Your task to perform on an android device: toggle location history Image 0: 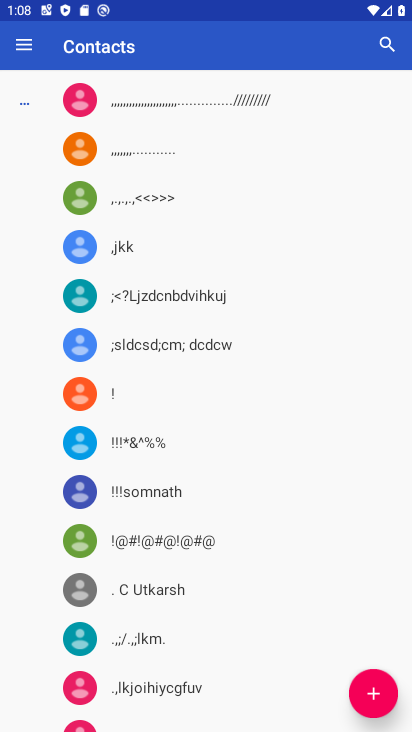
Step 0: press home button
Your task to perform on an android device: toggle location history Image 1: 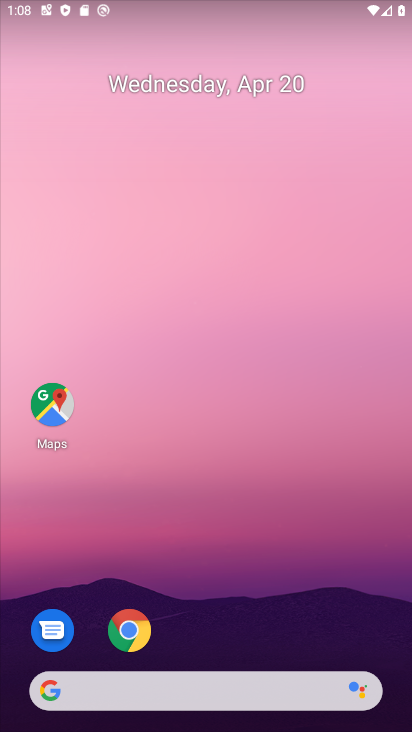
Step 1: drag from (331, 638) to (323, 164)
Your task to perform on an android device: toggle location history Image 2: 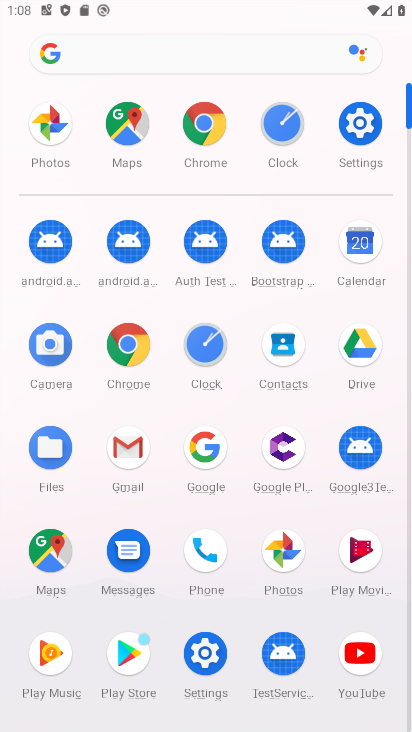
Step 2: click (363, 128)
Your task to perform on an android device: toggle location history Image 3: 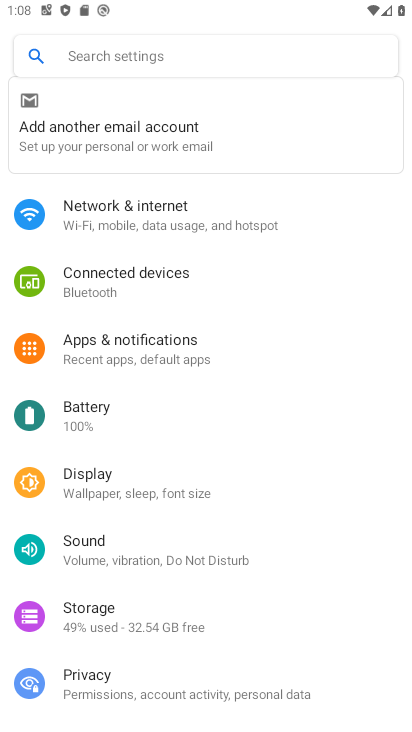
Step 3: drag from (270, 560) to (270, 312)
Your task to perform on an android device: toggle location history Image 4: 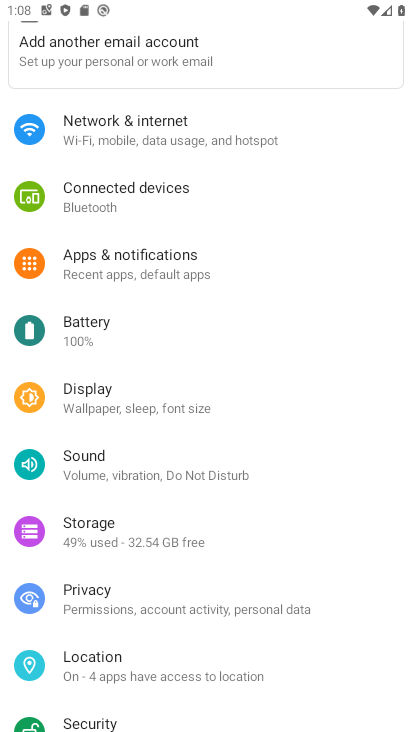
Step 4: click (108, 672)
Your task to perform on an android device: toggle location history Image 5: 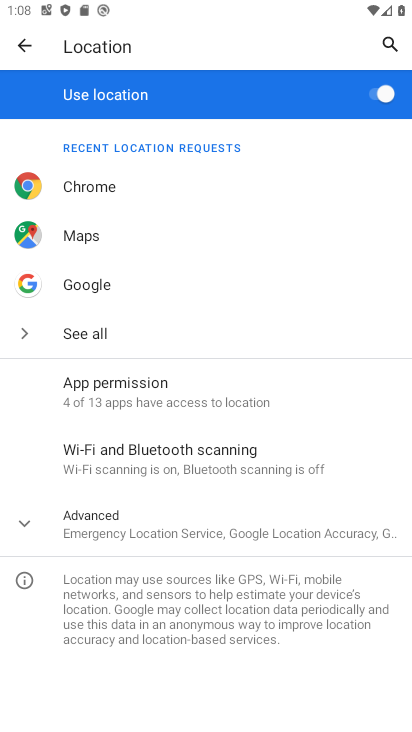
Step 5: click (126, 525)
Your task to perform on an android device: toggle location history Image 6: 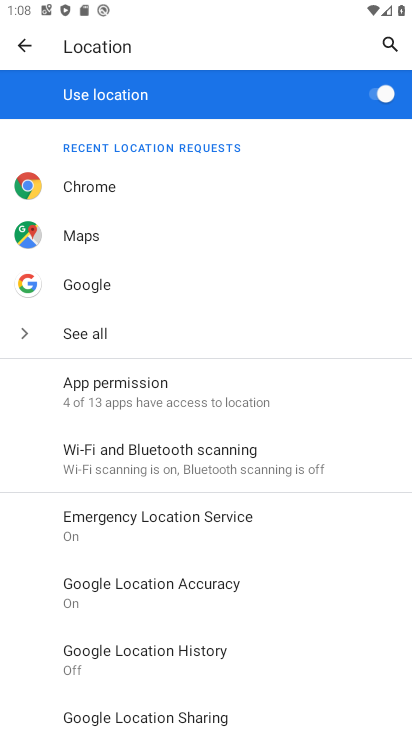
Step 6: click (151, 658)
Your task to perform on an android device: toggle location history Image 7: 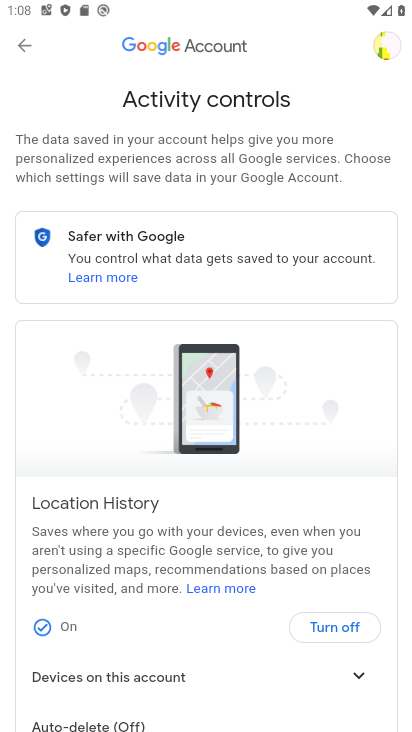
Step 7: drag from (303, 583) to (321, 325)
Your task to perform on an android device: toggle location history Image 8: 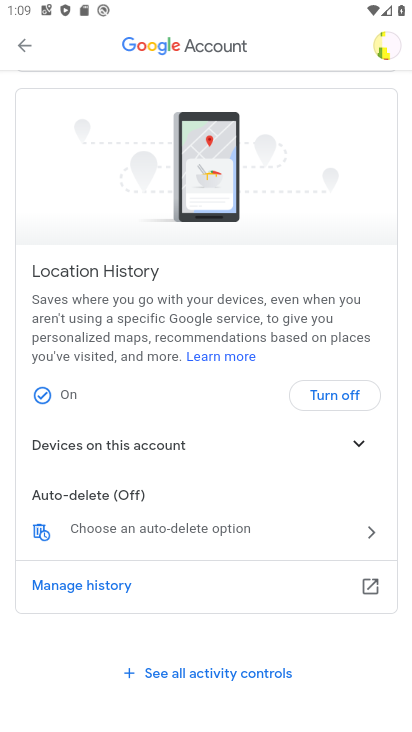
Step 8: click (118, 594)
Your task to perform on an android device: toggle location history Image 9: 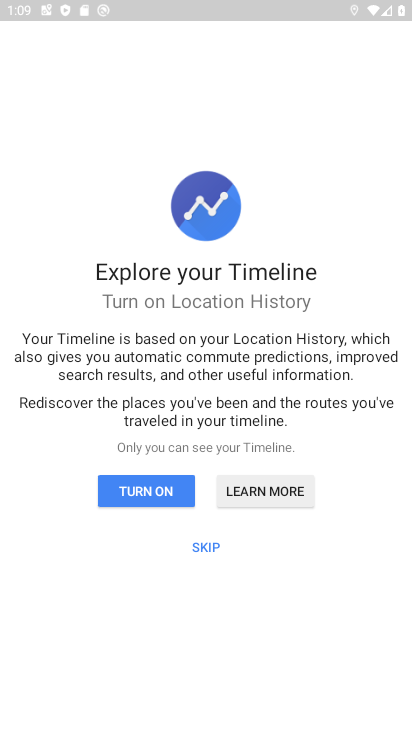
Step 9: click (195, 541)
Your task to perform on an android device: toggle location history Image 10: 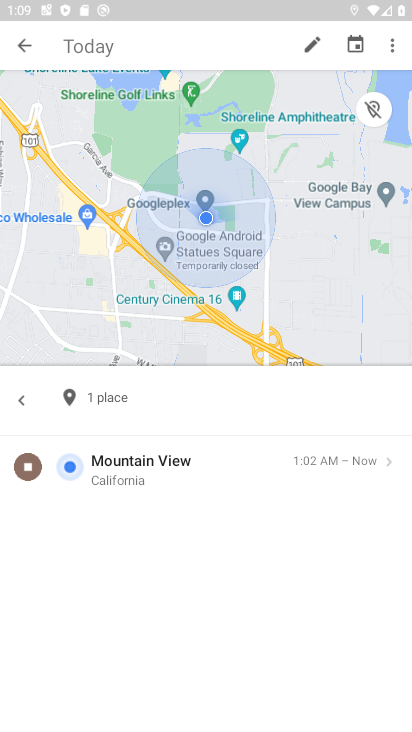
Step 10: click (393, 51)
Your task to perform on an android device: toggle location history Image 11: 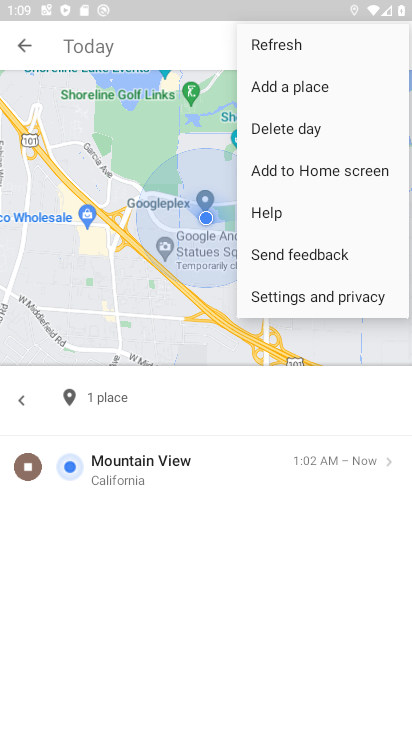
Step 11: click (328, 291)
Your task to perform on an android device: toggle location history Image 12: 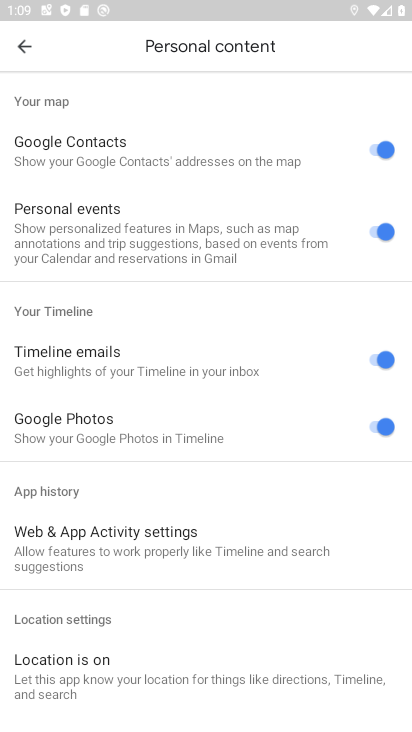
Step 12: drag from (259, 632) to (272, 345)
Your task to perform on an android device: toggle location history Image 13: 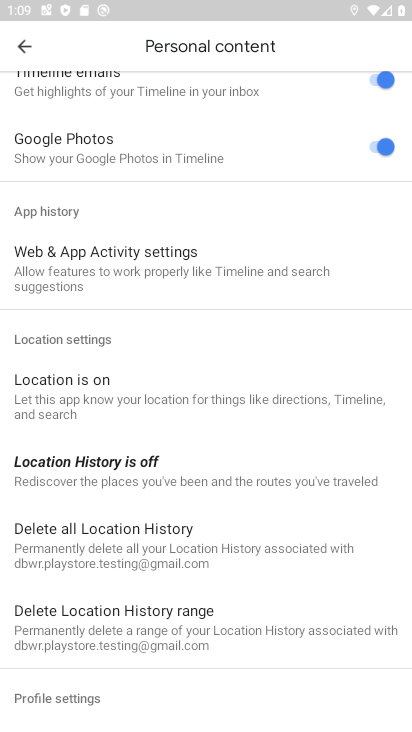
Step 13: click (112, 527)
Your task to perform on an android device: toggle location history Image 14: 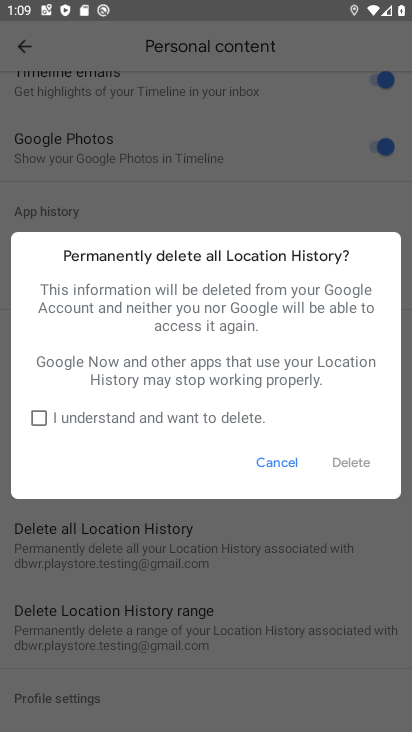
Step 14: click (53, 421)
Your task to perform on an android device: toggle location history Image 15: 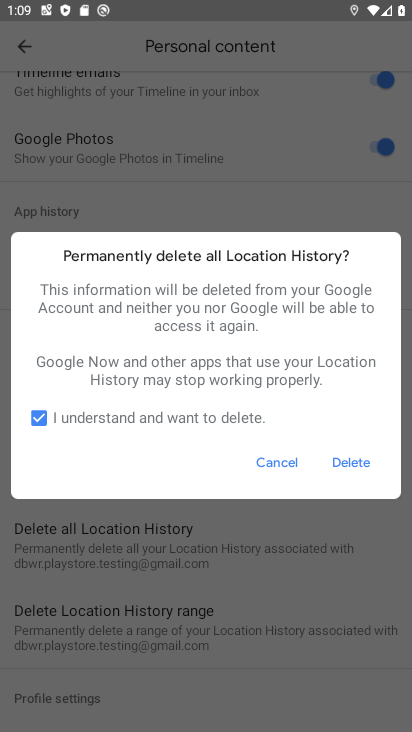
Step 15: click (351, 459)
Your task to perform on an android device: toggle location history Image 16: 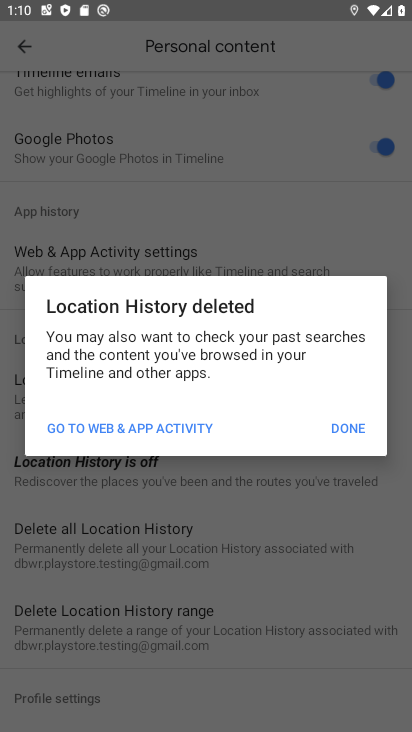
Step 16: click (347, 425)
Your task to perform on an android device: toggle location history Image 17: 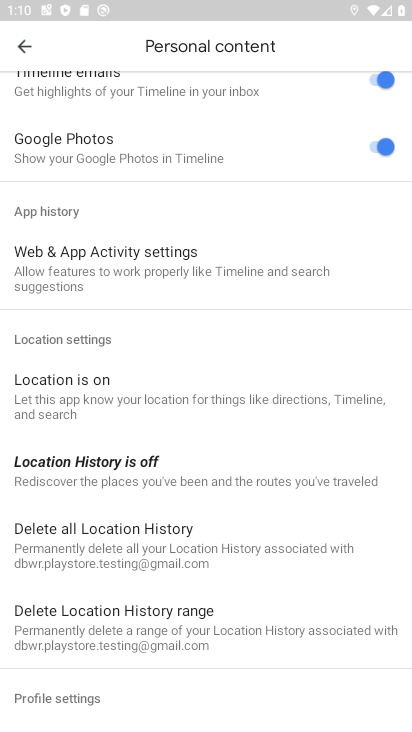
Step 17: task complete